Your task to perform on an android device: turn on javascript in the chrome app Image 0: 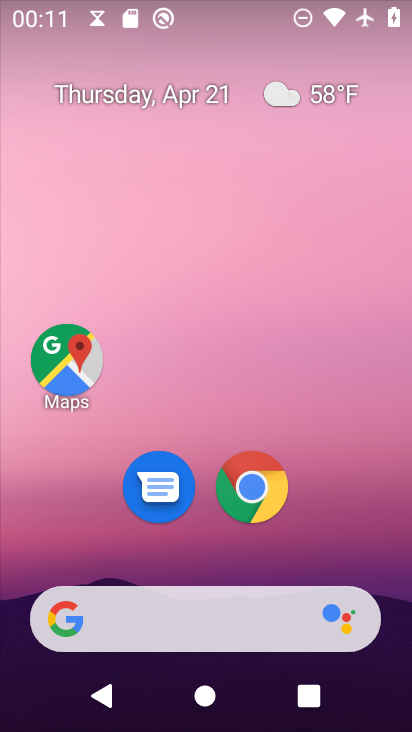
Step 0: drag from (358, 534) to (287, 35)
Your task to perform on an android device: turn on javascript in the chrome app Image 1: 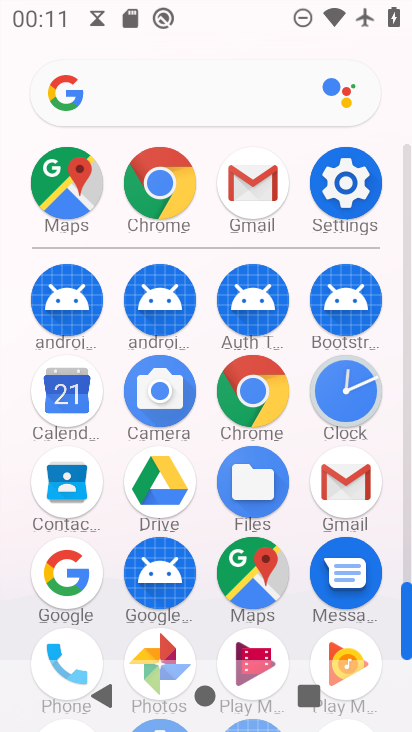
Step 1: click (154, 179)
Your task to perform on an android device: turn on javascript in the chrome app Image 2: 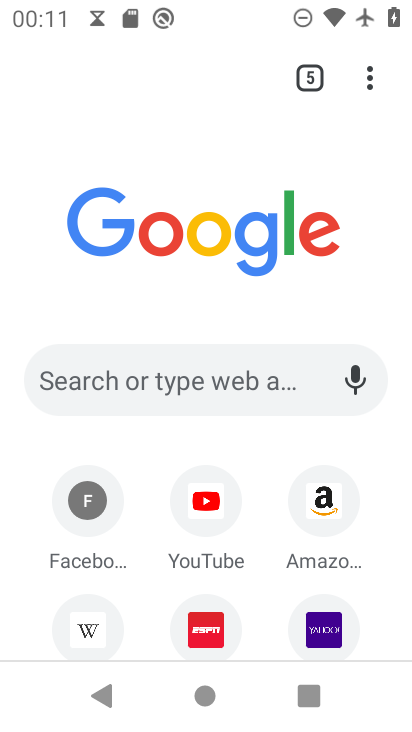
Step 2: drag from (366, 80) to (158, 550)
Your task to perform on an android device: turn on javascript in the chrome app Image 3: 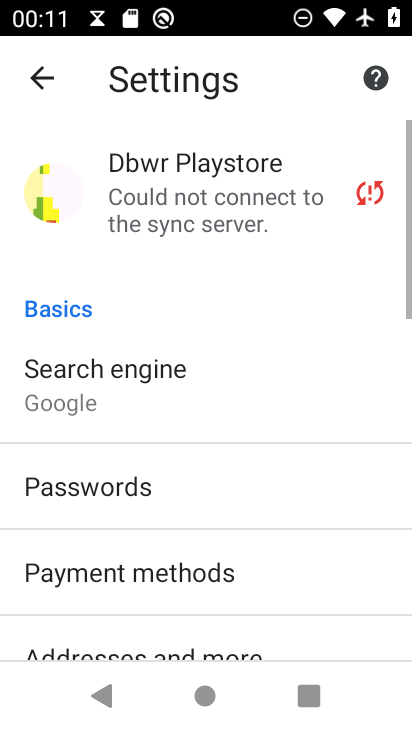
Step 3: drag from (158, 548) to (174, 161)
Your task to perform on an android device: turn on javascript in the chrome app Image 4: 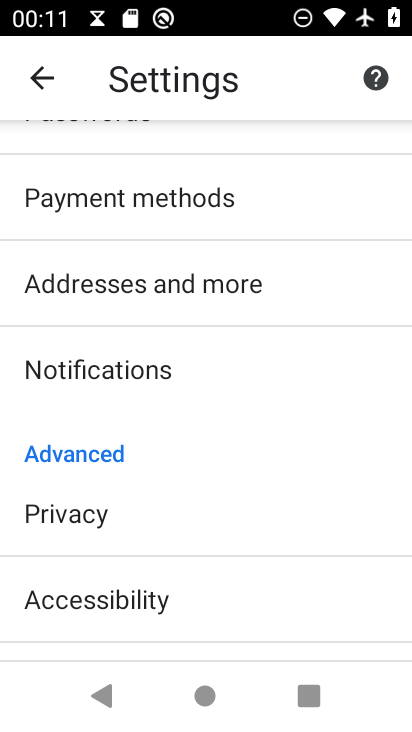
Step 4: drag from (236, 529) to (267, 145)
Your task to perform on an android device: turn on javascript in the chrome app Image 5: 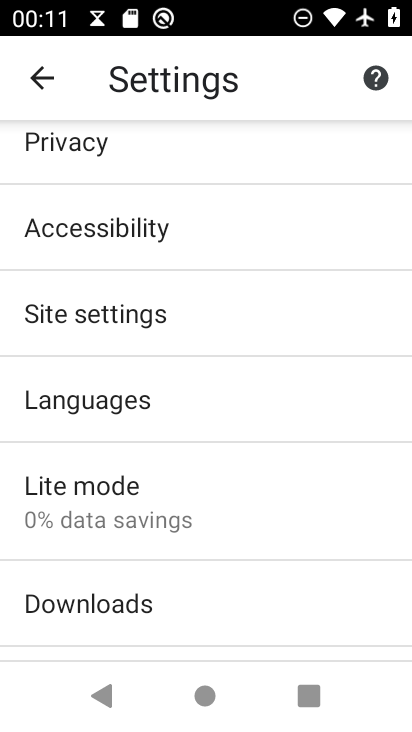
Step 5: click (166, 322)
Your task to perform on an android device: turn on javascript in the chrome app Image 6: 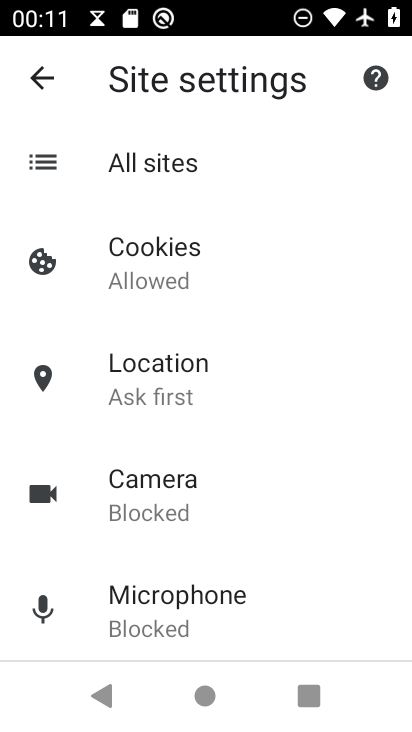
Step 6: drag from (303, 458) to (297, 145)
Your task to perform on an android device: turn on javascript in the chrome app Image 7: 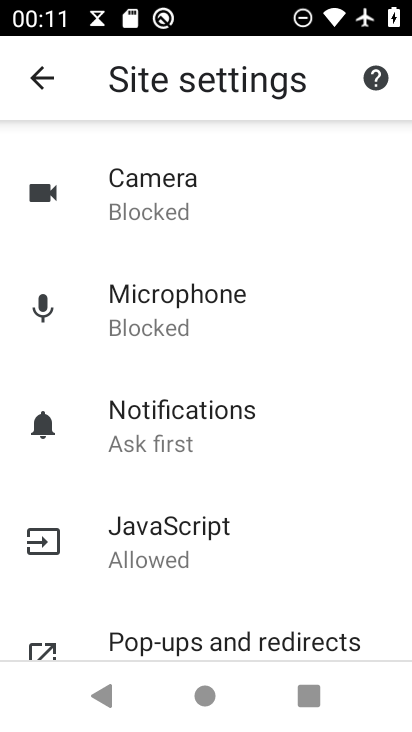
Step 7: click (197, 537)
Your task to perform on an android device: turn on javascript in the chrome app Image 8: 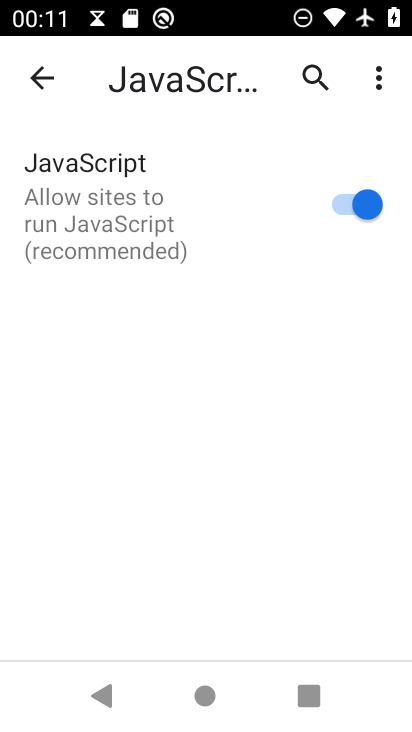
Step 8: click (349, 185)
Your task to perform on an android device: turn on javascript in the chrome app Image 9: 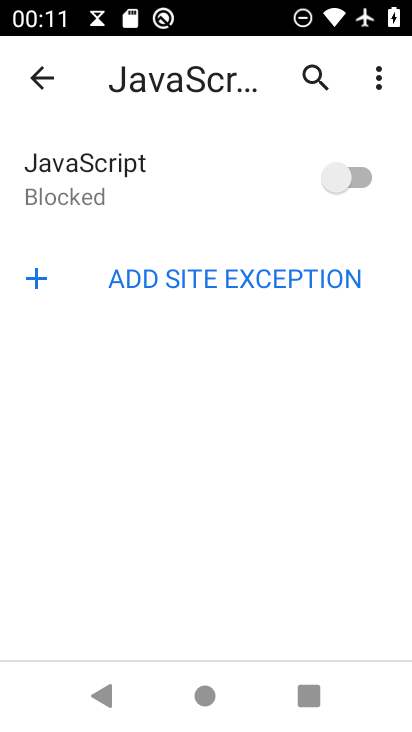
Step 9: click (349, 189)
Your task to perform on an android device: turn on javascript in the chrome app Image 10: 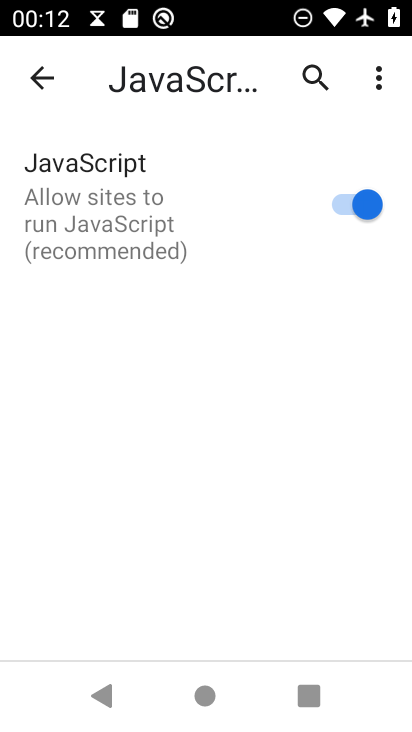
Step 10: task complete